Your task to perform on an android device: turn off location Image 0: 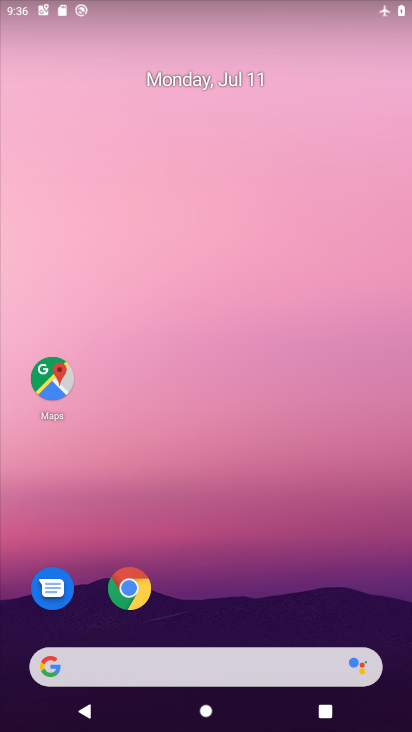
Step 0: drag from (196, 604) to (150, 216)
Your task to perform on an android device: turn off location Image 1: 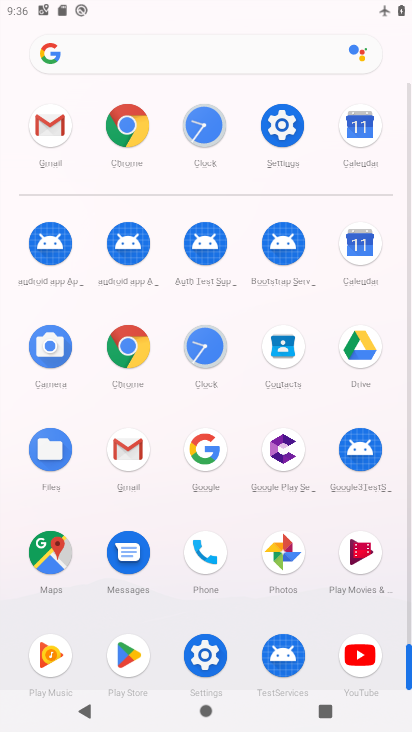
Step 1: click (274, 113)
Your task to perform on an android device: turn off location Image 2: 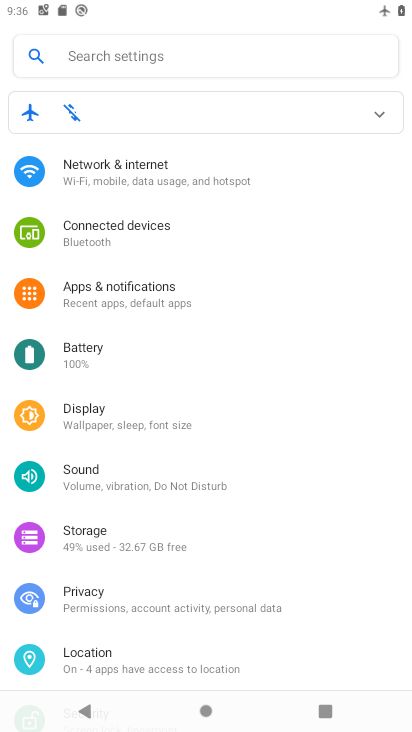
Step 2: click (98, 649)
Your task to perform on an android device: turn off location Image 3: 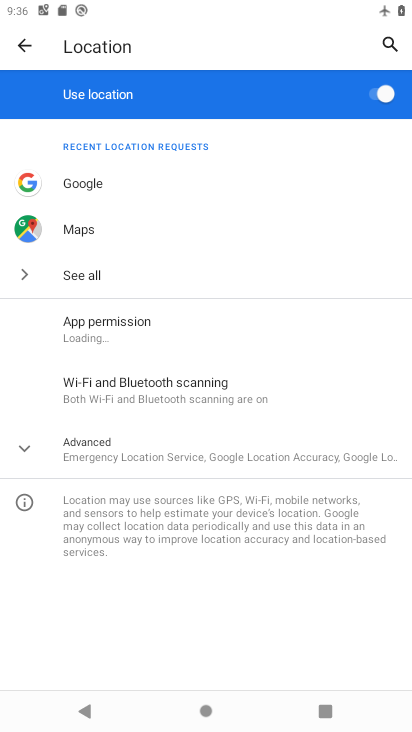
Step 3: click (379, 96)
Your task to perform on an android device: turn off location Image 4: 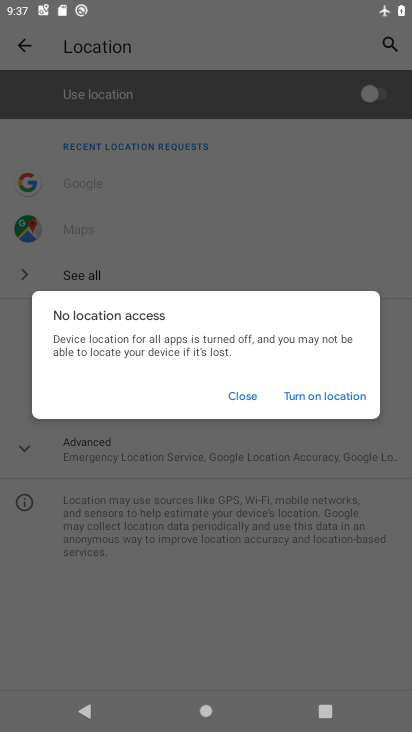
Step 4: click (242, 393)
Your task to perform on an android device: turn off location Image 5: 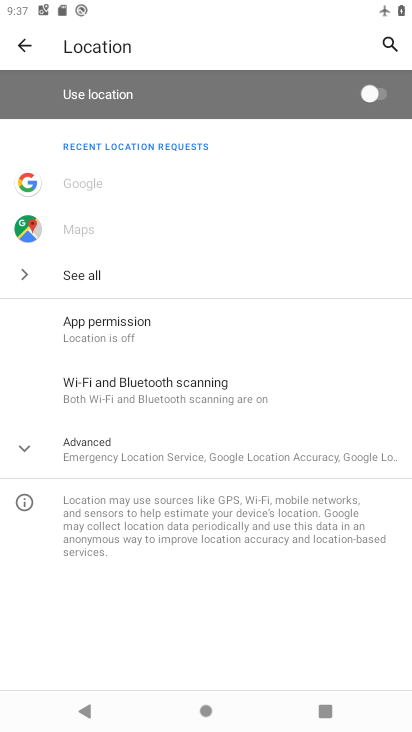
Step 5: task complete